Your task to perform on an android device: Play the last video I watched on Youtube Image 0: 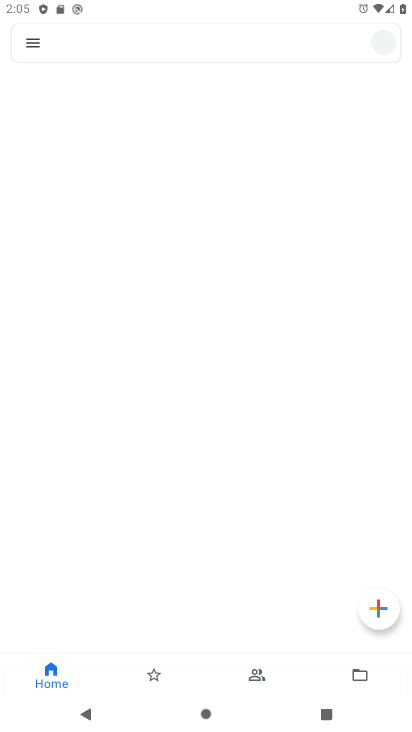
Step 0: click (178, 80)
Your task to perform on an android device: Play the last video I watched on Youtube Image 1: 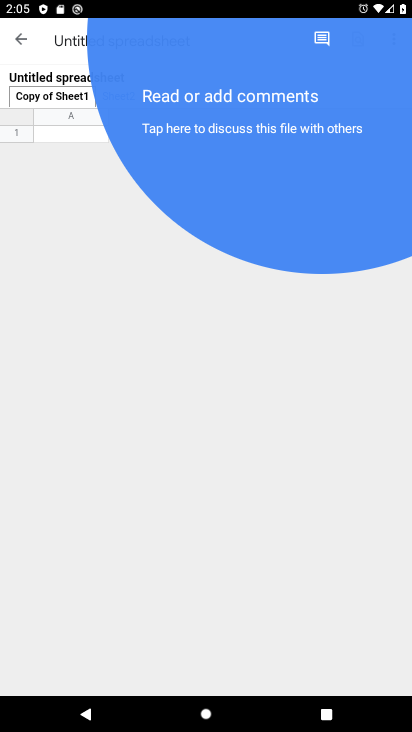
Step 1: press home button
Your task to perform on an android device: Play the last video I watched on Youtube Image 2: 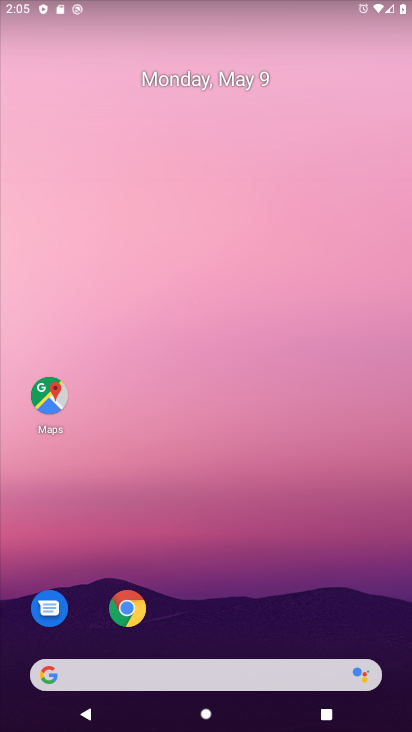
Step 2: drag from (223, 620) to (240, 17)
Your task to perform on an android device: Play the last video I watched on Youtube Image 3: 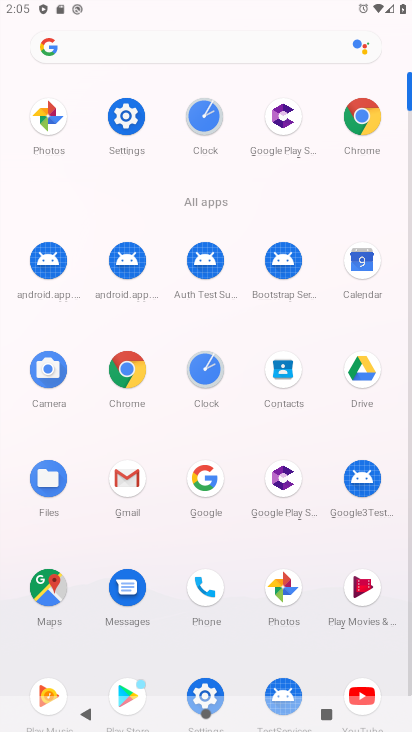
Step 3: click (367, 690)
Your task to perform on an android device: Play the last video I watched on Youtube Image 4: 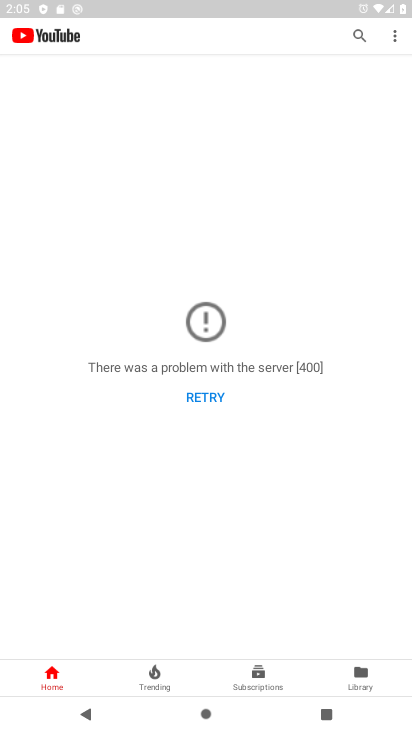
Step 4: click (367, 690)
Your task to perform on an android device: Play the last video I watched on Youtube Image 5: 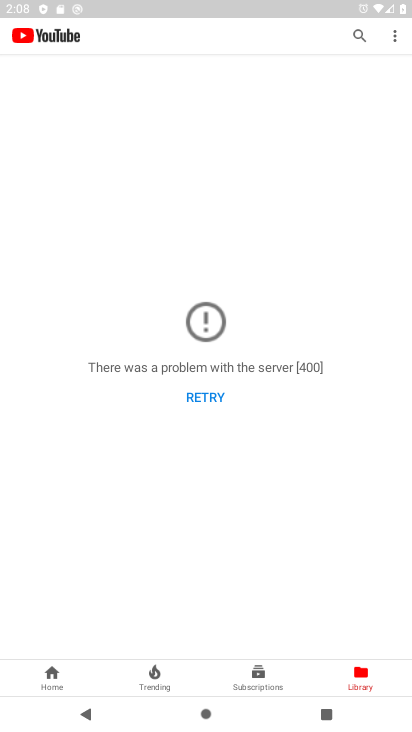
Step 5: task complete